Your task to perform on an android device: Search for "beats solo 3" on target.com, select the first entry, add it to the cart, then select checkout. Image 0: 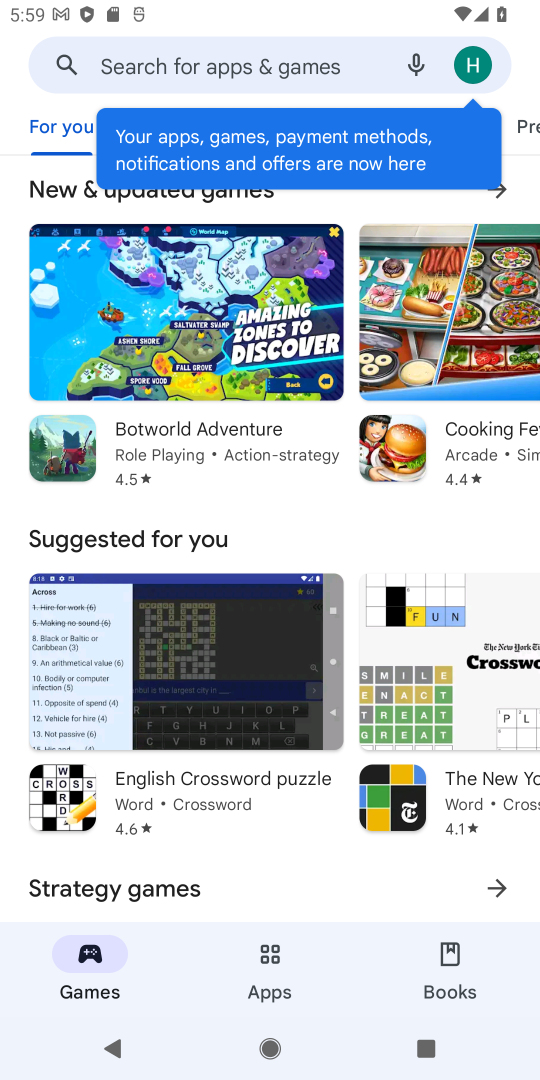
Step 0: press home button
Your task to perform on an android device: Search for "beats solo 3" on target.com, select the first entry, add it to the cart, then select checkout. Image 1: 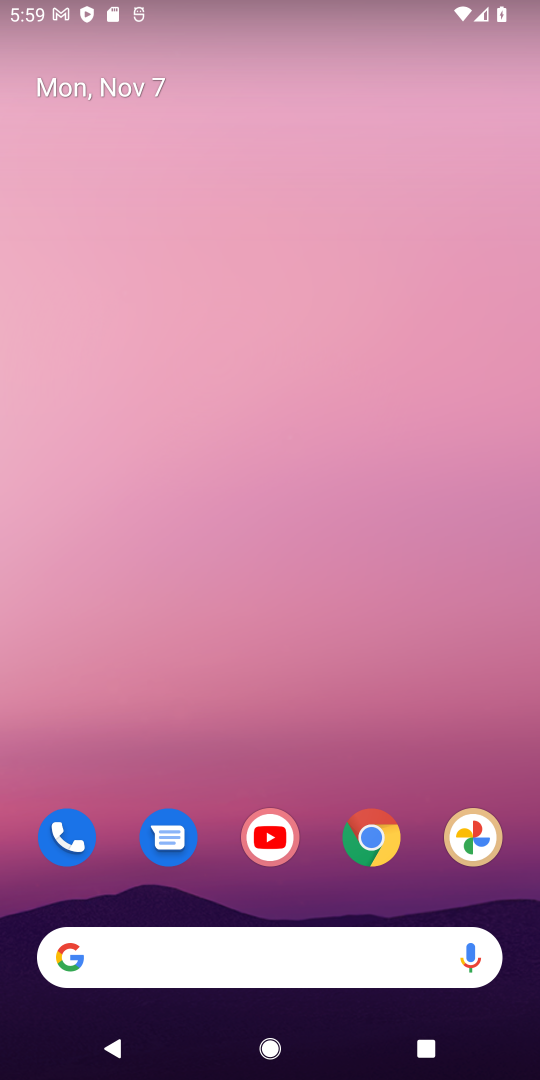
Step 1: click (388, 842)
Your task to perform on an android device: Search for "beats solo 3" on target.com, select the first entry, add it to the cart, then select checkout. Image 2: 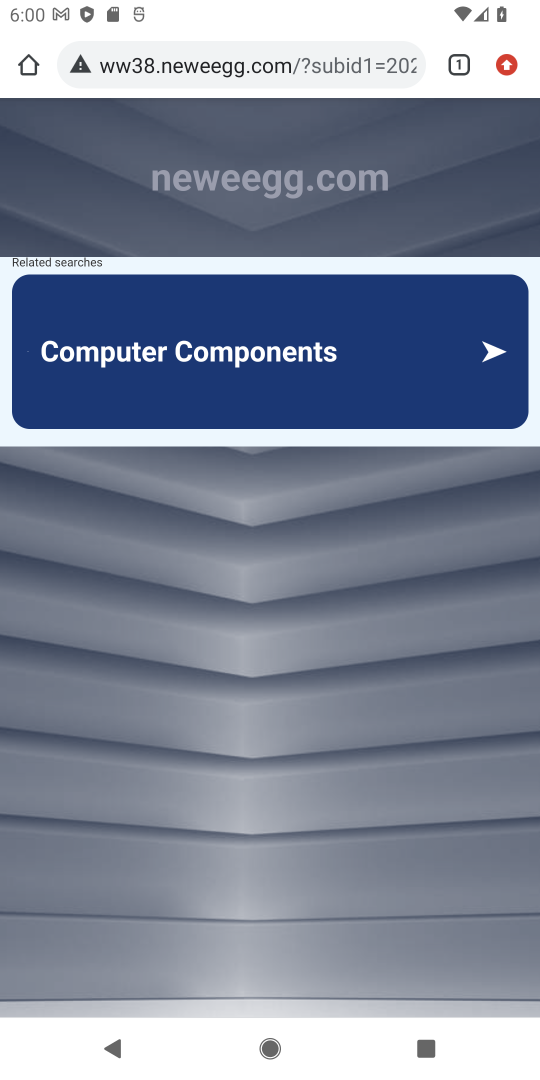
Step 2: click (264, 63)
Your task to perform on an android device: Search for "beats solo 3" on target.com, select the first entry, add it to the cart, then select checkout. Image 3: 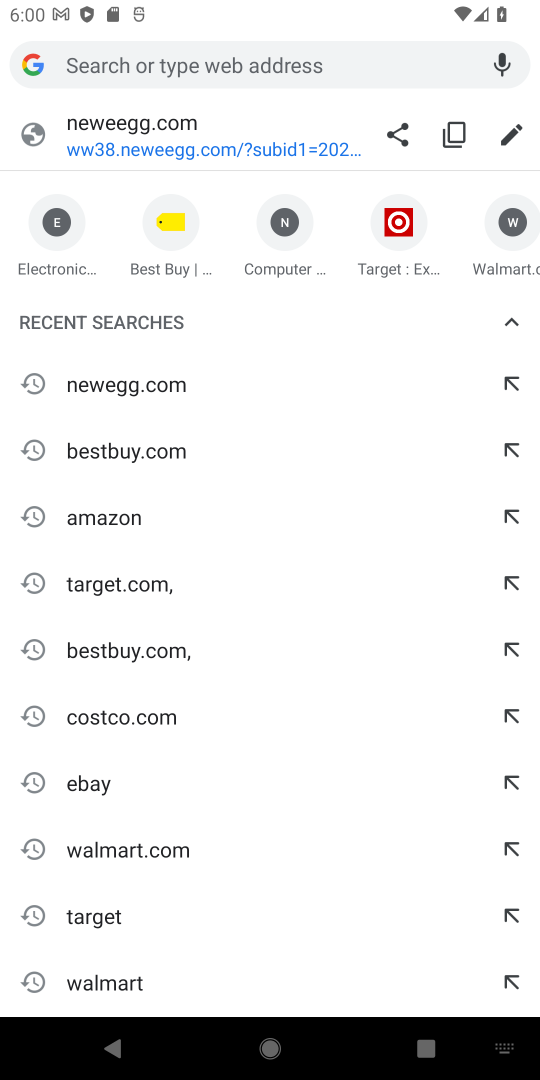
Step 3: type "target.com"
Your task to perform on an android device: Search for "beats solo 3" on target.com, select the first entry, add it to the cart, then select checkout. Image 4: 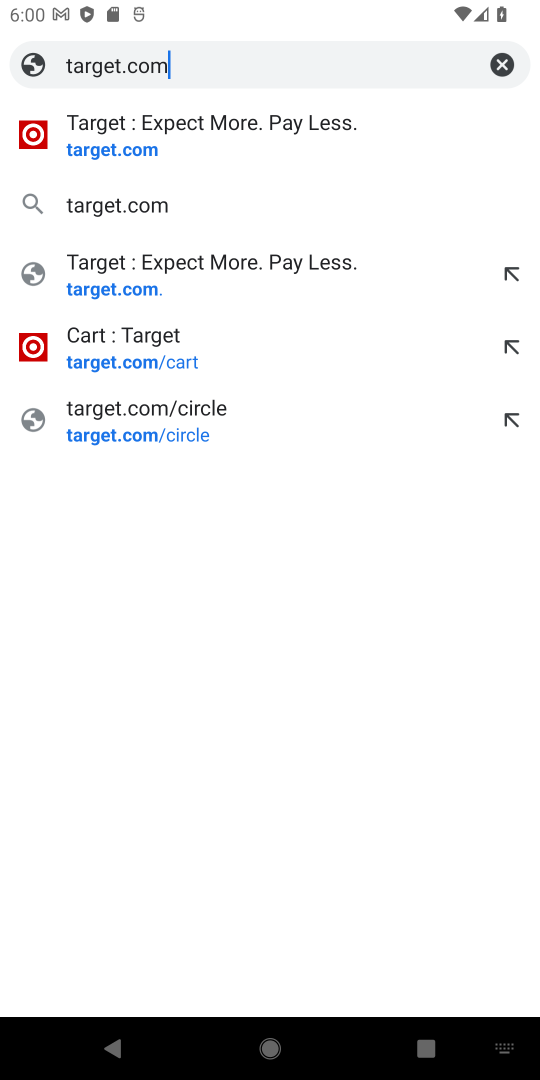
Step 4: click (169, 130)
Your task to perform on an android device: Search for "beats solo 3" on target.com, select the first entry, add it to the cart, then select checkout. Image 5: 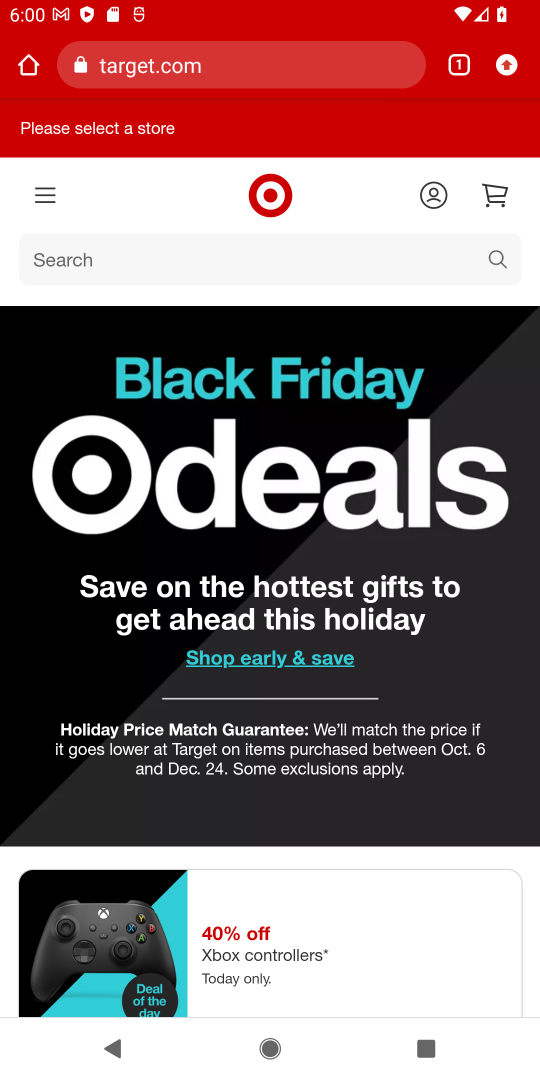
Step 5: click (271, 268)
Your task to perform on an android device: Search for "beats solo 3" on target.com, select the first entry, add it to the cart, then select checkout. Image 6: 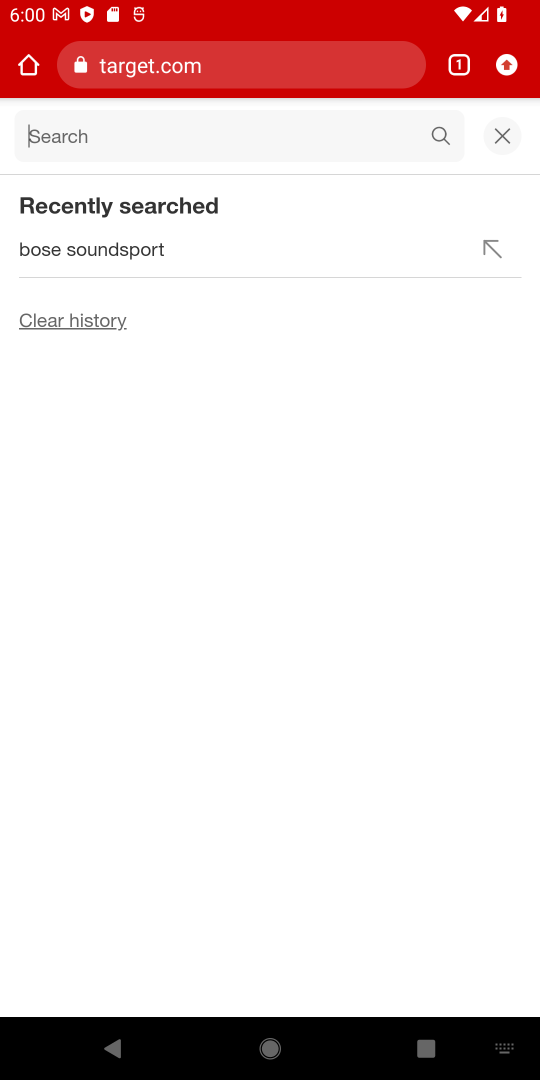
Step 6: type "beats solo 3"
Your task to perform on an android device: Search for "beats solo 3" on target.com, select the first entry, add it to the cart, then select checkout. Image 7: 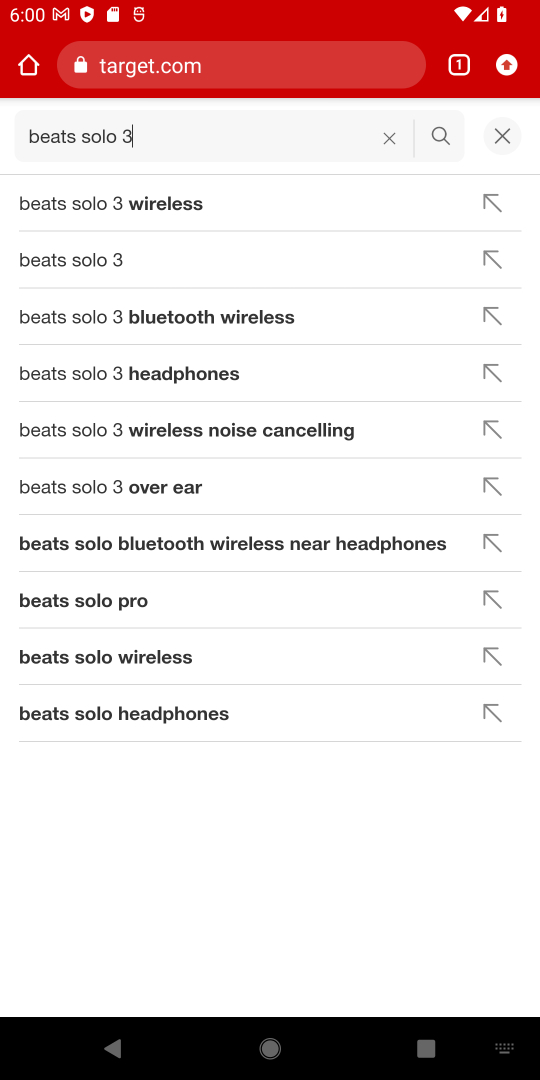
Step 7: press enter
Your task to perform on an android device: Search for "beats solo 3" on target.com, select the first entry, add it to the cart, then select checkout. Image 8: 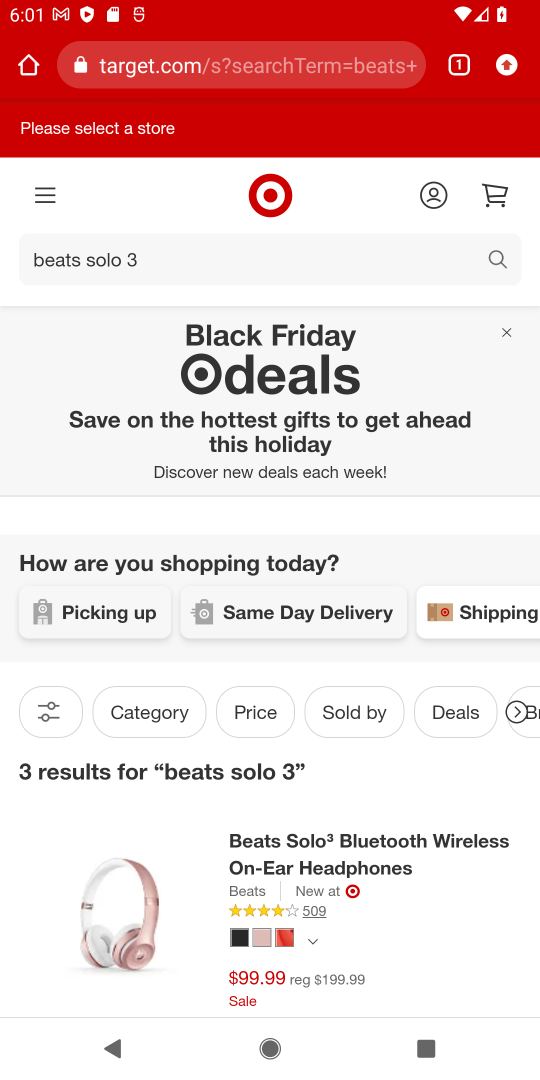
Step 8: click (178, 924)
Your task to perform on an android device: Search for "beats solo 3" on target.com, select the first entry, add it to the cart, then select checkout. Image 9: 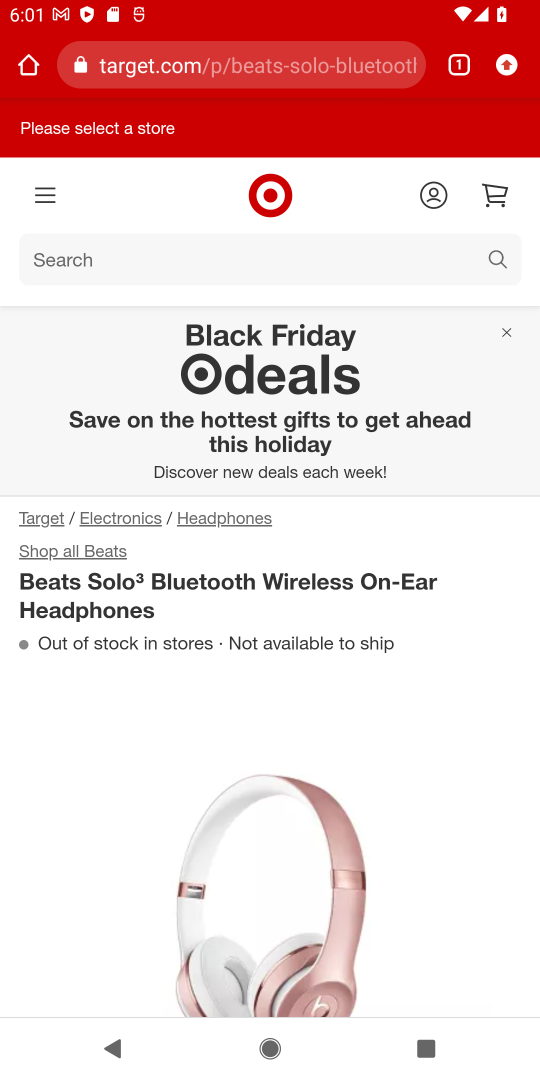
Step 9: drag from (201, 891) to (75, 99)
Your task to perform on an android device: Search for "beats solo 3" on target.com, select the first entry, add it to the cart, then select checkout. Image 10: 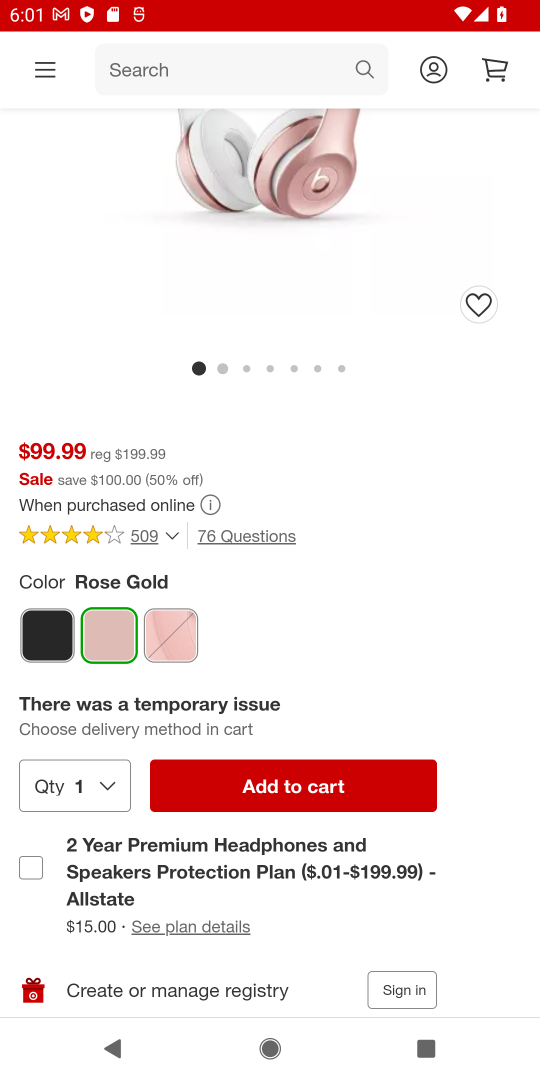
Step 10: click (223, 805)
Your task to perform on an android device: Search for "beats solo 3" on target.com, select the first entry, add it to the cart, then select checkout. Image 11: 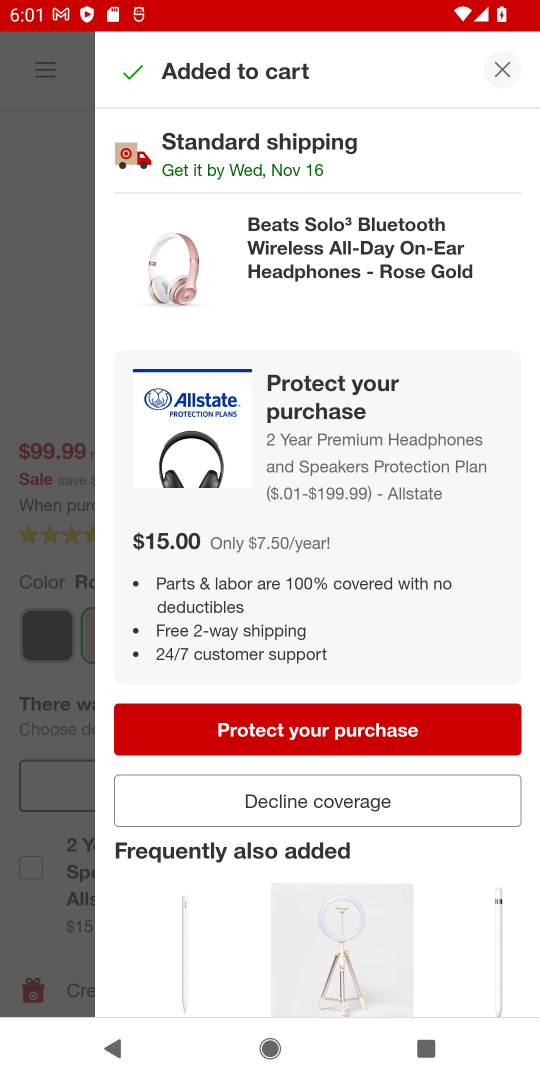
Step 11: click (355, 810)
Your task to perform on an android device: Search for "beats solo 3" on target.com, select the first entry, add it to the cart, then select checkout. Image 12: 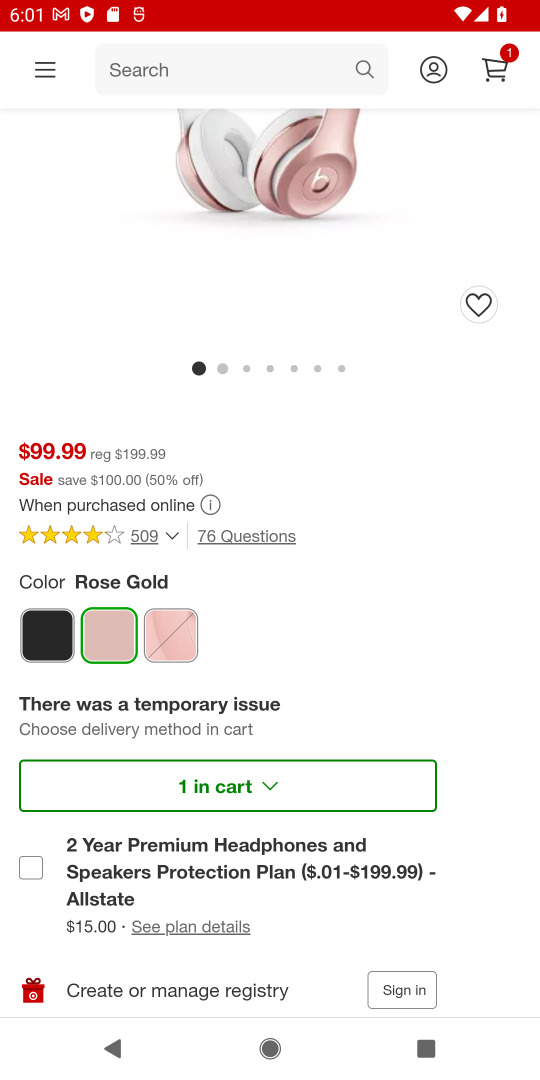
Step 12: click (494, 82)
Your task to perform on an android device: Search for "beats solo 3" on target.com, select the first entry, add it to the cart, then select checkout. Image 13: 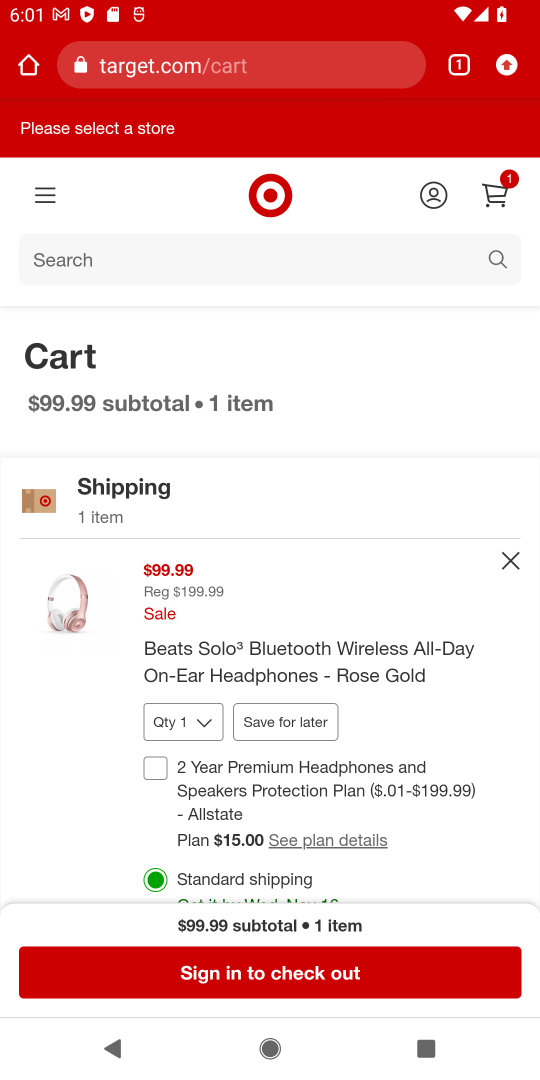
Step 13: click (296, 975)
Your task to perform on an android device: Search for "beats solo 3" on target.com, select the first entry, add it to the cart, then select checkout. Image 14: 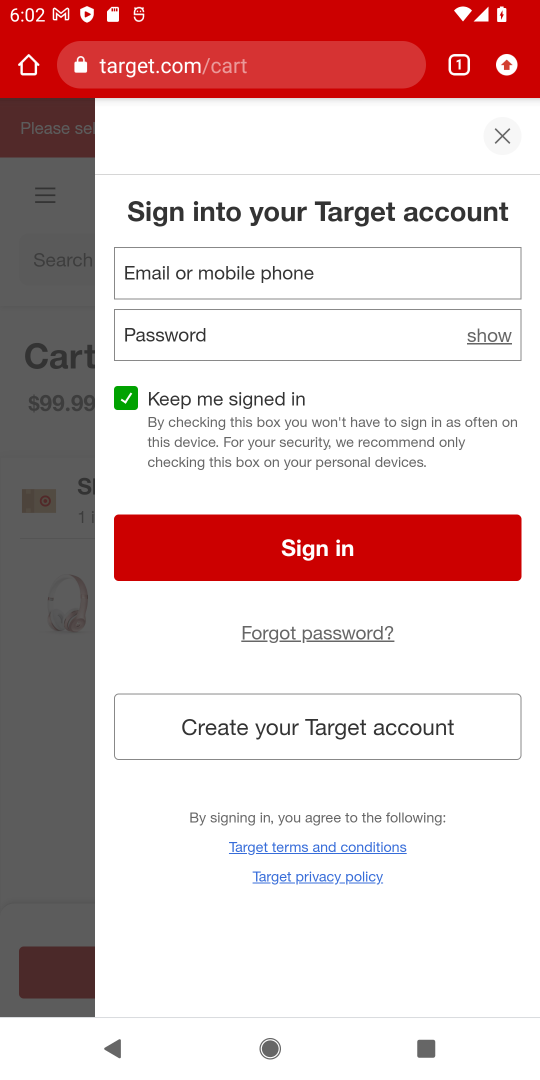
Step 14: task complete